Your task to perform on an android device: open app "Truecaller" (install if not already installed) and go to login screen Image 0: 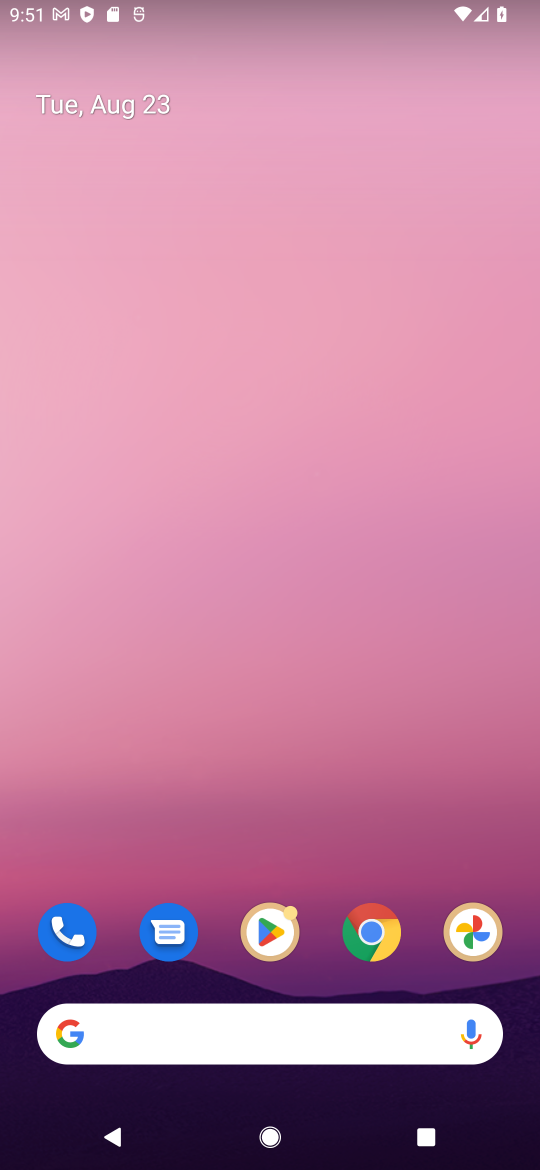
Step 0: click (282, 956)
Your task to perform on an android device: open app "Truecaller" (install if not already installed) and go to login screen Image 1: 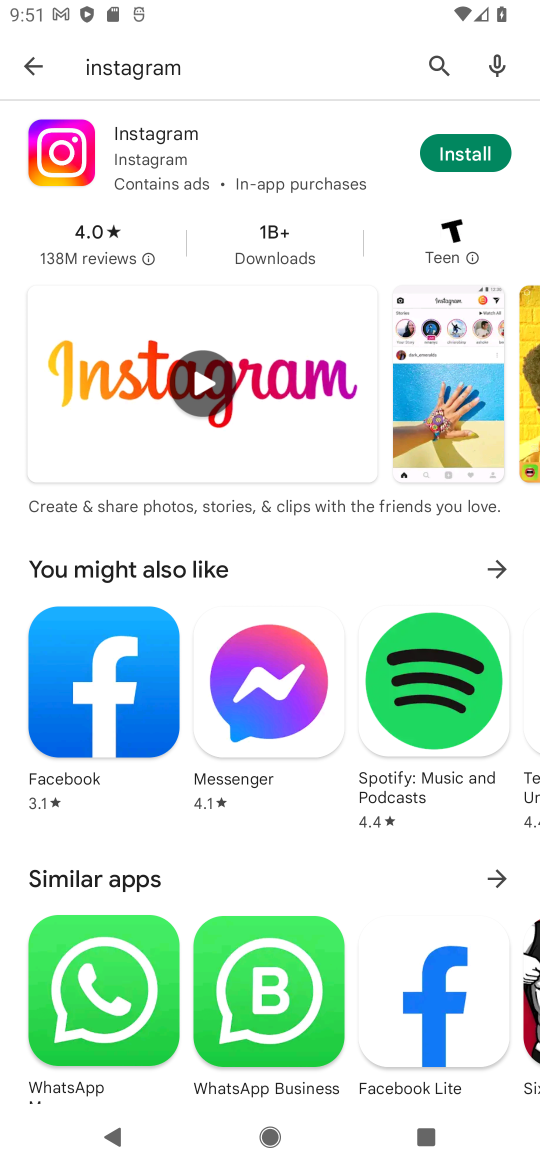
Step 1: click (437, 56)
Your task to perform on an android device: open app "Truecaller" (install if not already installed) and go to login screen Image 2: 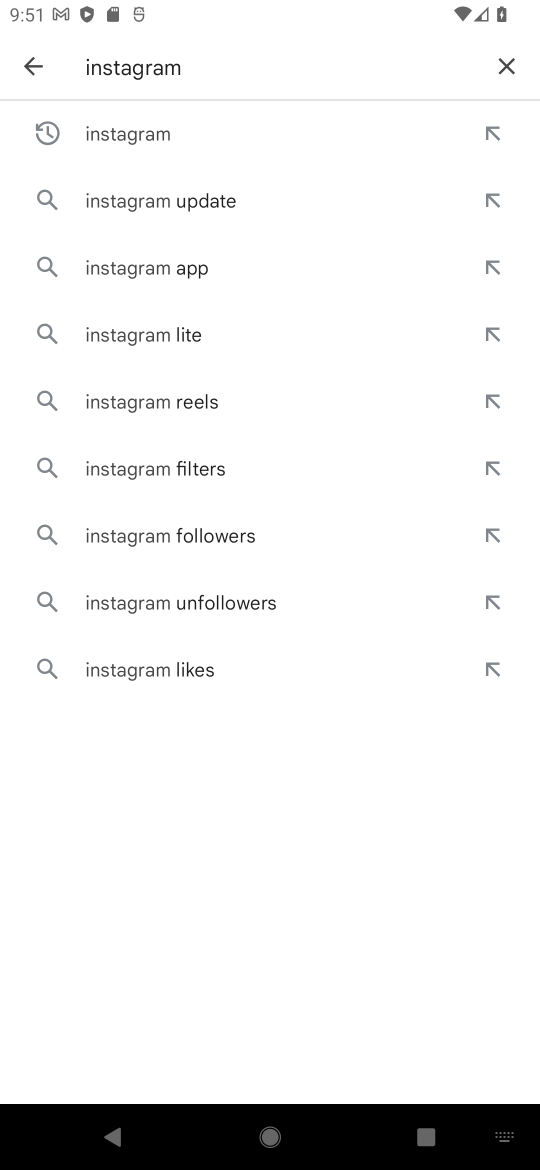
Step 2: click (500, 73)
Your task to perform on an android device: open app "Truecaller" (install if not already installed) and go to login screen Image 3: 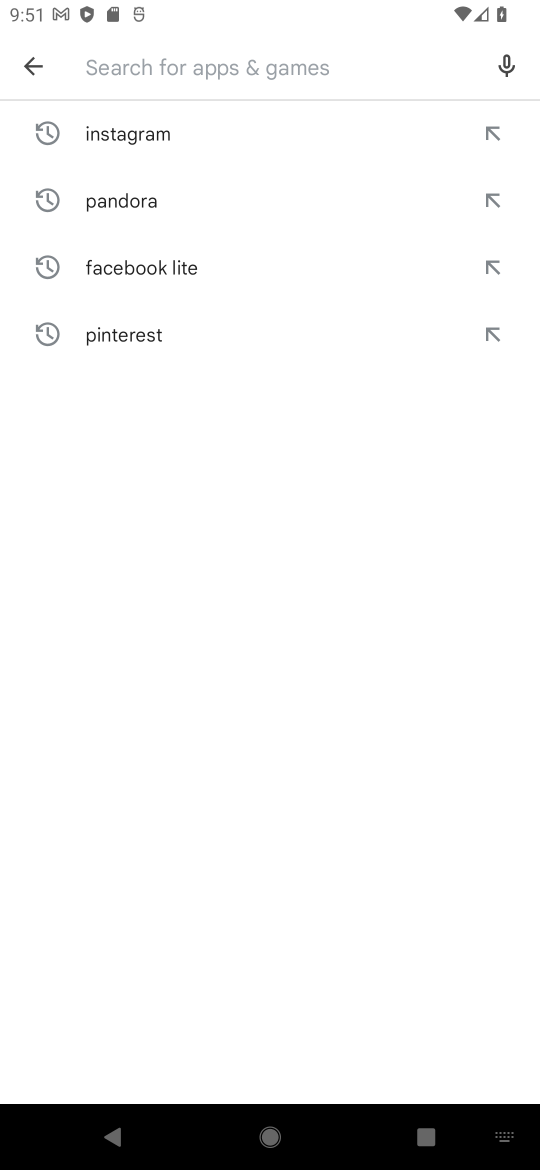
Step 3: type "truecaller"
Your task to perform on an android device: open app "Truecaller" (install if not already installed) and go to login screen Image 4: 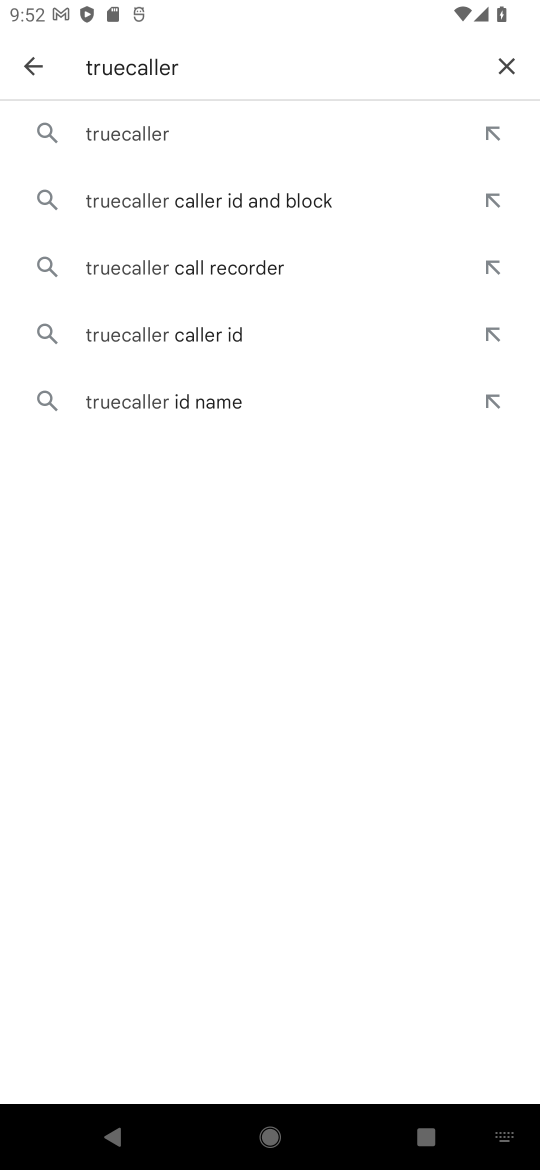
Step 4: click (107, 139)
Your task to perform on an android device: open app "Truecaller" (install if not already installed) and go to login screen Image 5: 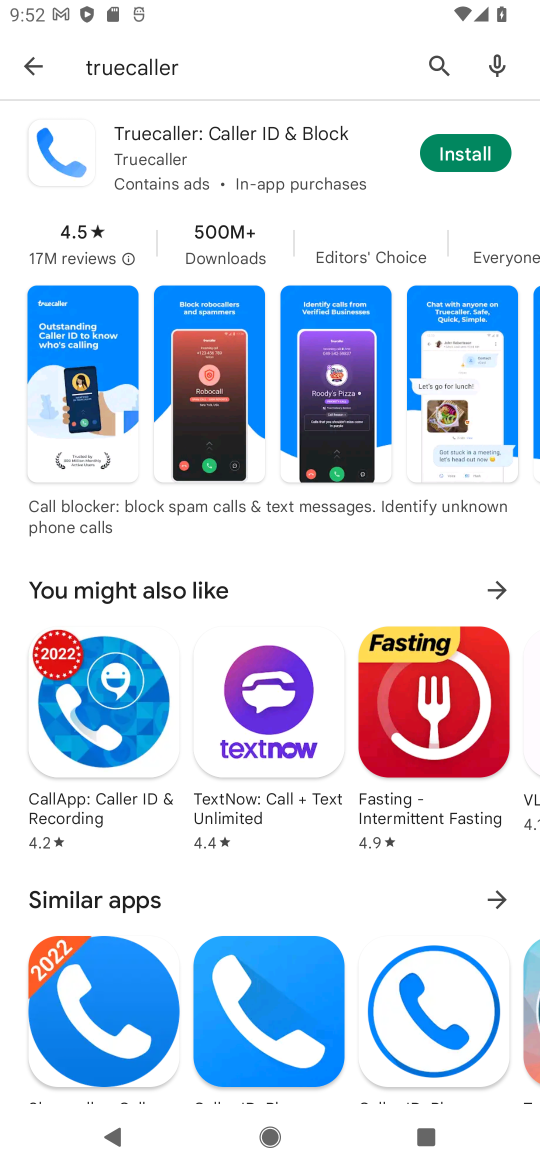
Step 5: click (448, 143)
Your task to perform on an android device: open app "Truecaller" (install if not already installed) and go to login screen Image 6: 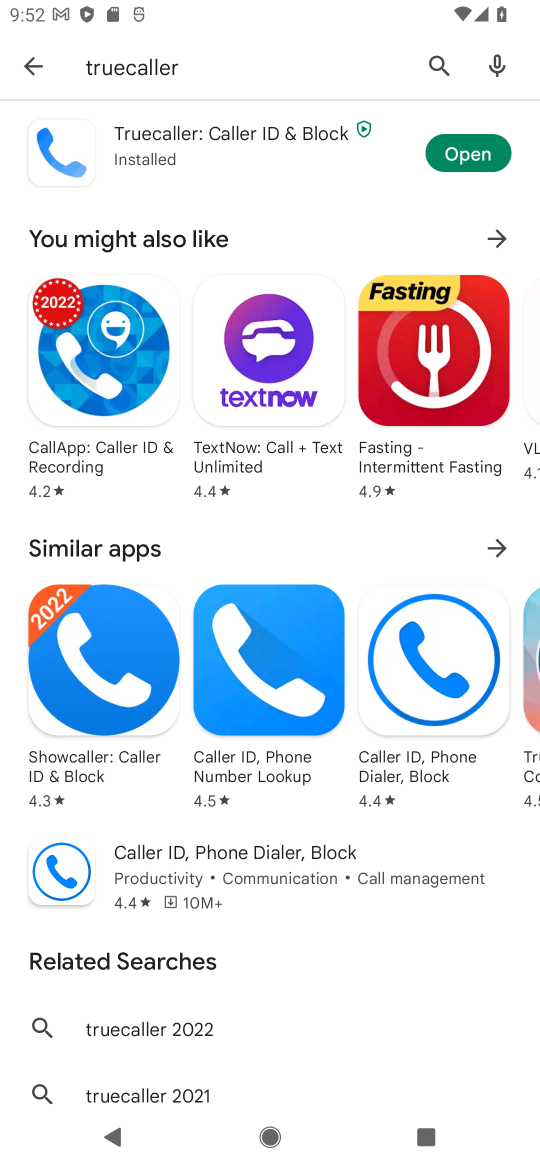
Step 6: click (454, 159)
Your task to perform on an android device: open app "Truecaller" (install if not already installed) and go to login screen Image 7: 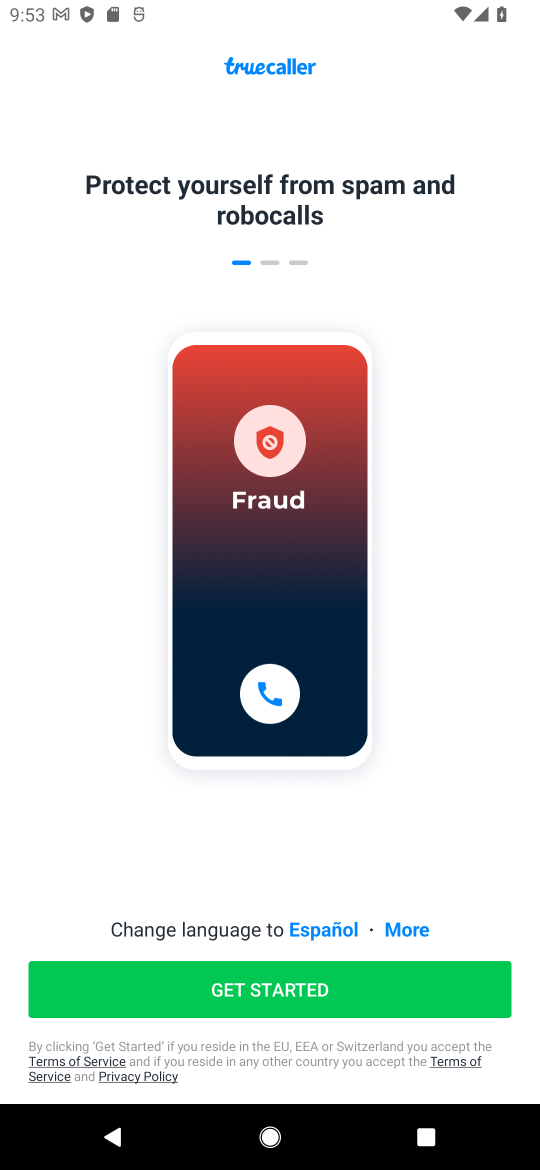
Step 7: click (305, 982)
Your task to perform on an android device: open app "Truecaller" (install if not already installed) and go to login screen Image 8: 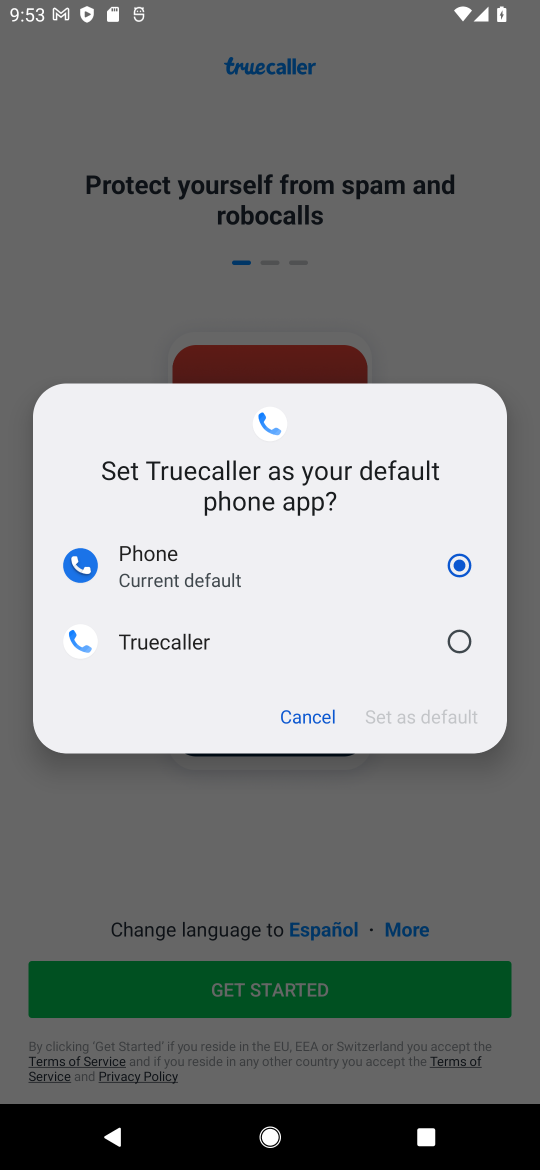
Step 8: click (301, 720)
Your task to perform on an android device: open app "Truecaller" (install if not already installed) and go to login screen Image 9: 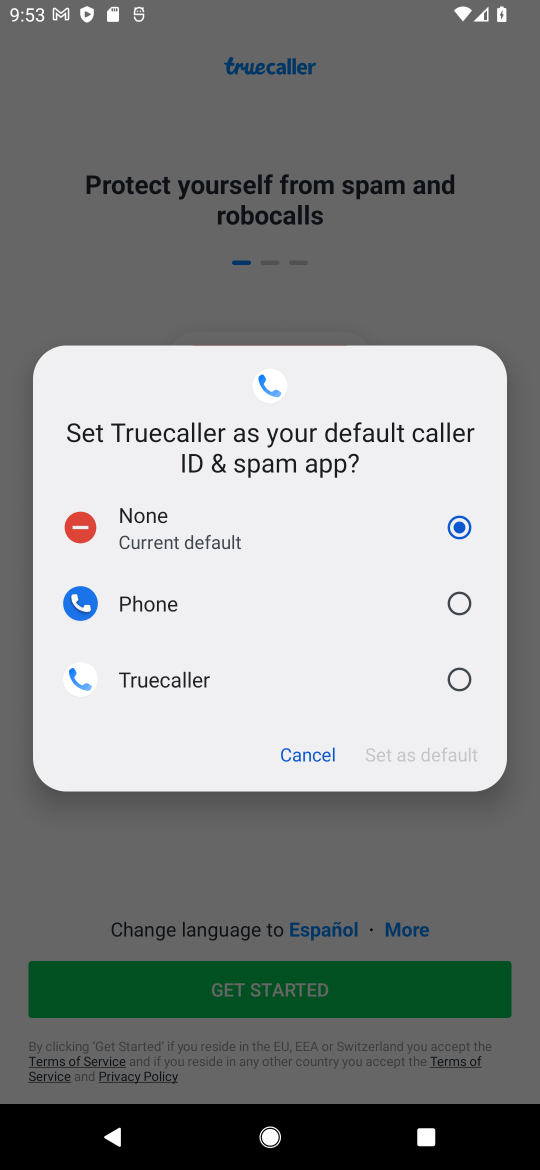
Step 9: click (357, 987)
Your task to perform on an android device: open app "Truecaller" (install if not already installed) and go to login screen Image 10: 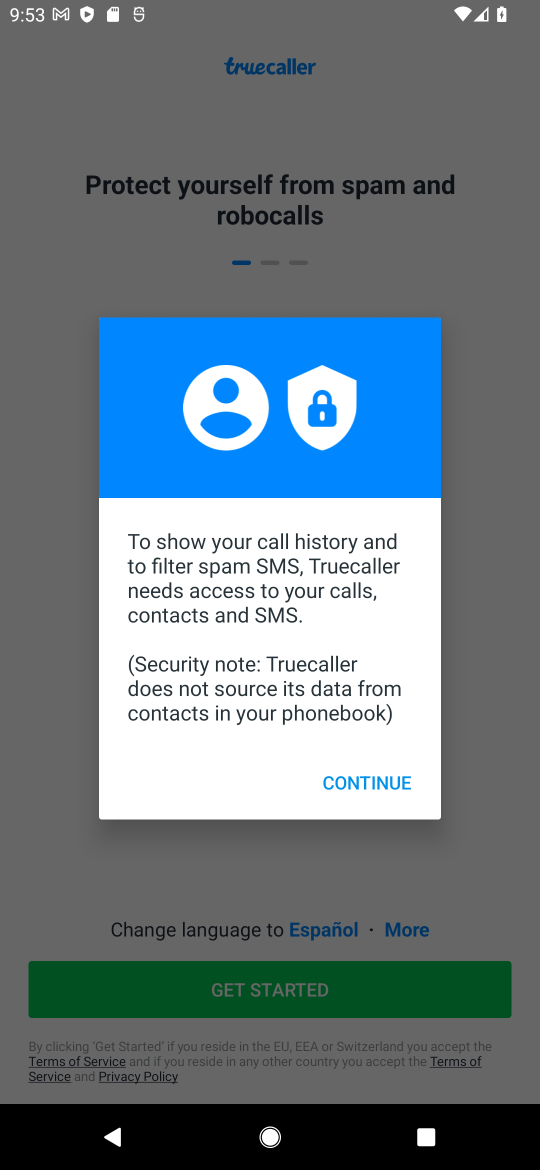
Step 10: click (388, 786)
Your task to perform on an android device: open app "Truecaller" (install if not already installed) and go to login screen Image 11: 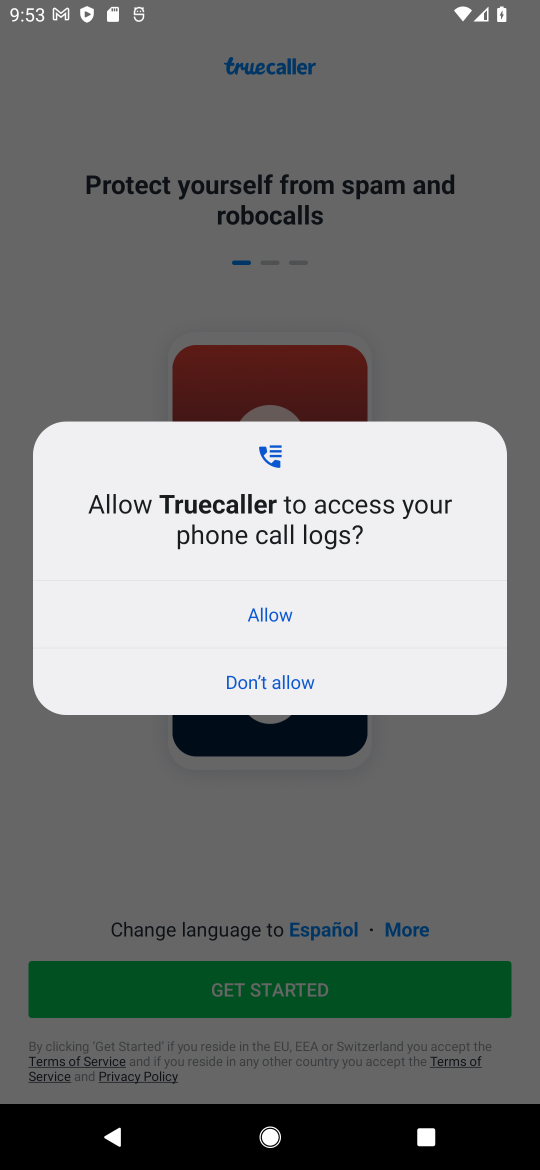
Step 11: click (293, 624)
Your task to perform on an android device: open app "Truecaller" (install if not already installed) and go to login screen Image 12: 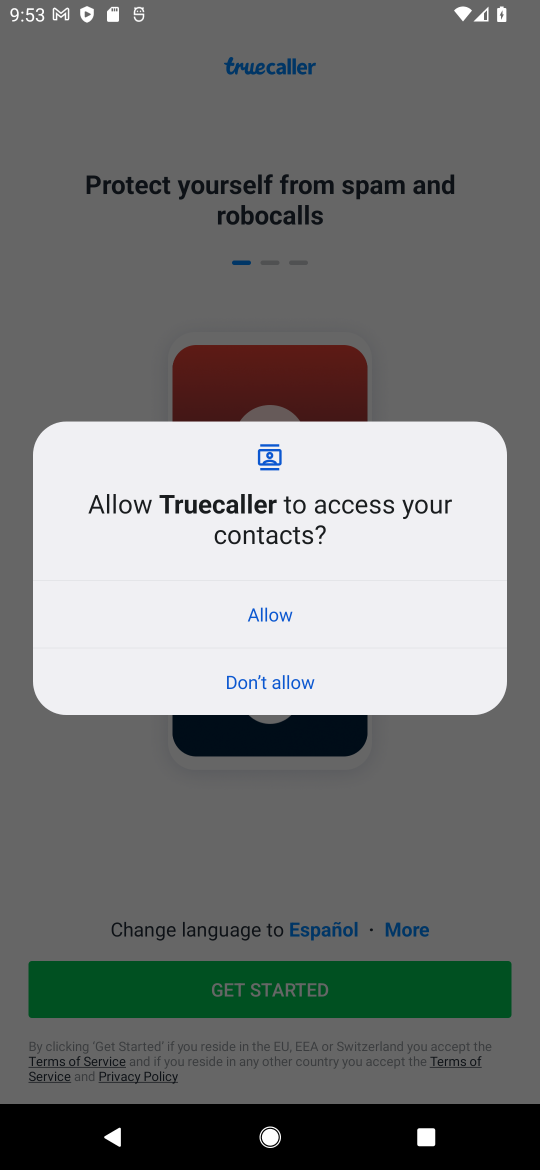
Step 12: click (305, 616)
Your task to perform on an android device: open app "Truecaller" (install if not already installed) and go to login screen Image 13: 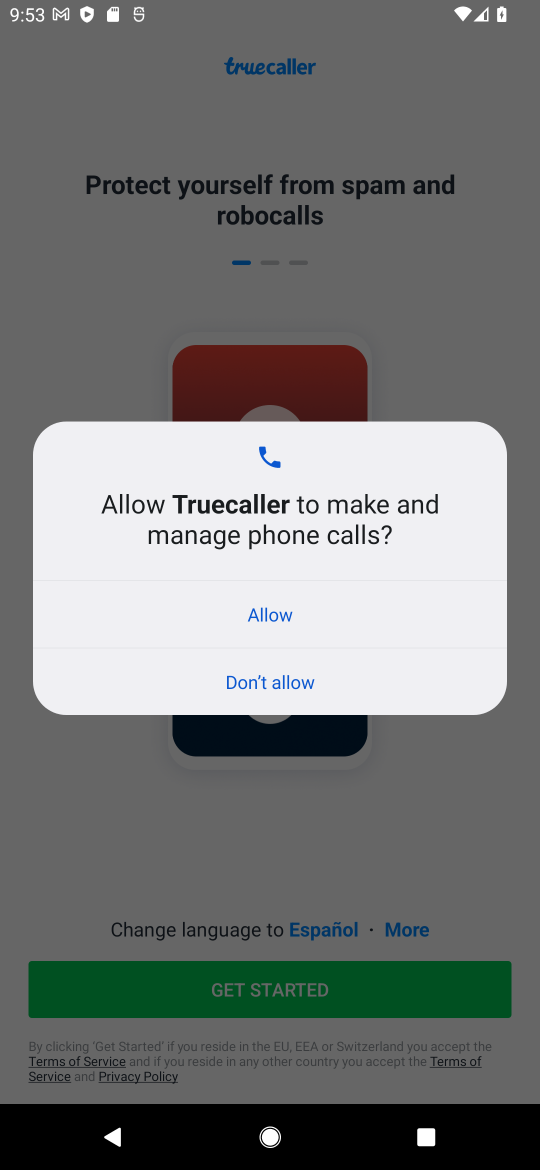
Step 13: click (267, 617)
Your task to perform on an android device: open app "Truecaller" (install if not already installed) and go to login screen Image 14: 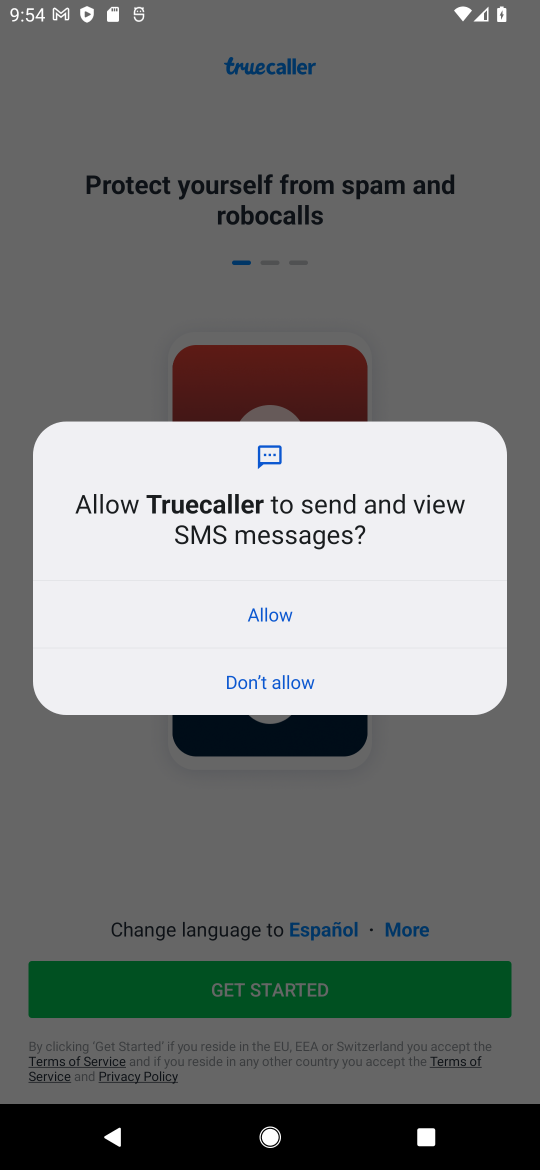
Step 14: click (270, 609)
Your task to perform on an android device: open app "Truecaller" (install if not already installed) and go to login screen Image 15: 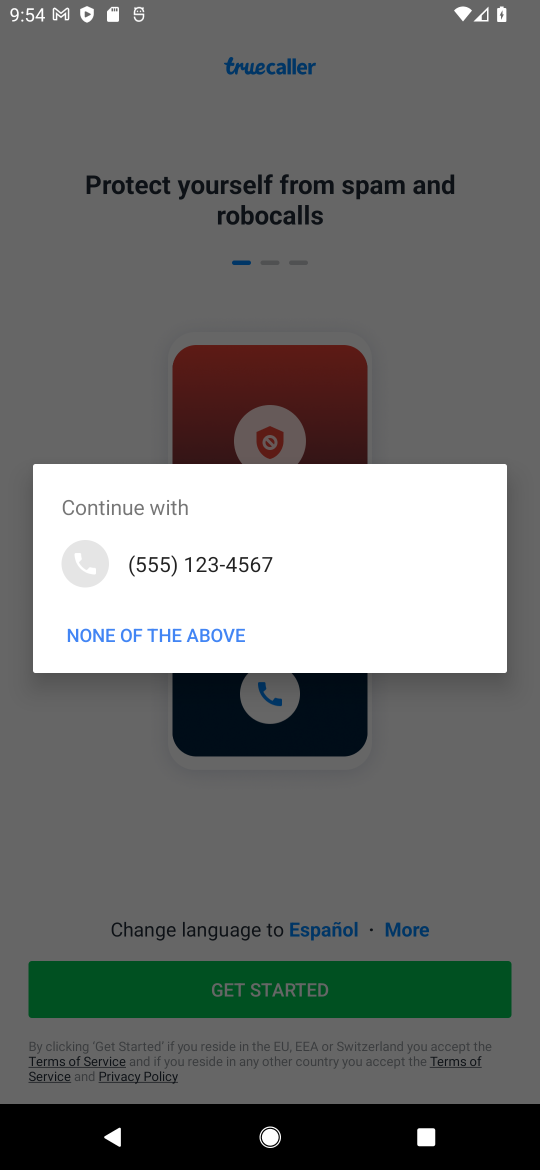
Step 15: task complete